Your task to perform on an android device: turn pop-ups on in chrome Image 0: 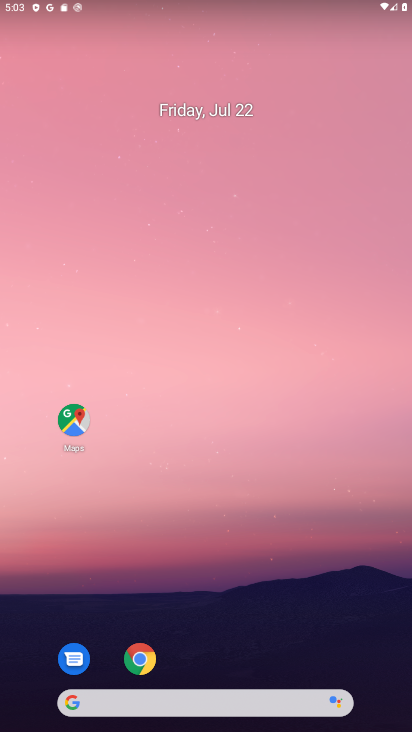
Step 0: click (131, 653)
Your task to perform on an android device: turn pop-ups on in chrome Image 1: 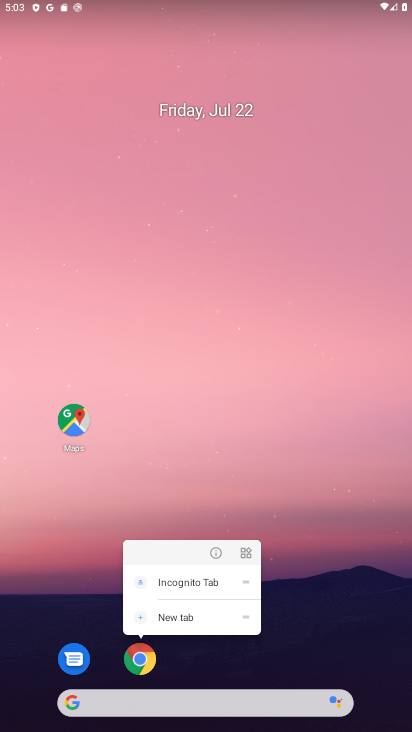
Step 1: click (142, 655)
Your task to perform on an android device: turn pop-ups on in chrome Image 2: 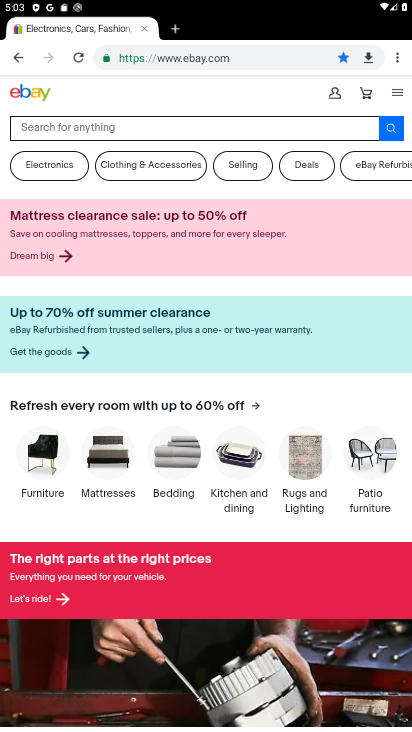
Step 2: click (399, 56)
Your task to perform on an android device: turn pop-ups on in chrome Image 3: 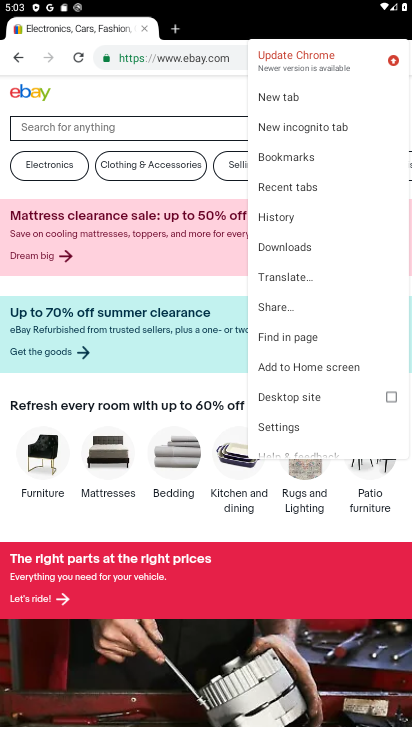
Step 3: click (312, 422)
Your task to perform on an android device: turn pop-ups on in chrome Image 4: 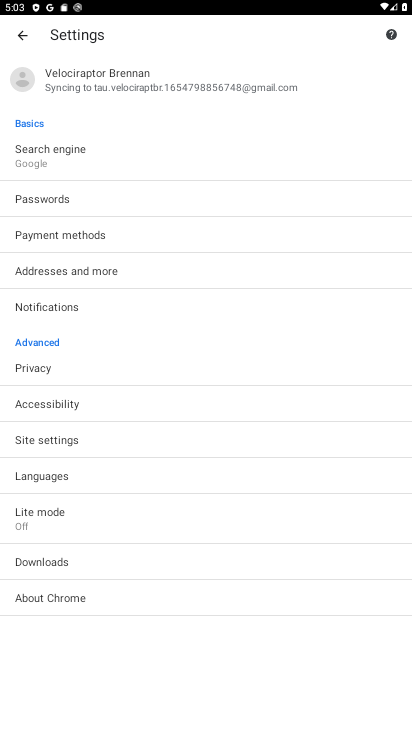
Step 4: click (107, 443)
Your task to perform on an android device: turn pop-ups on in chrome Image 5: 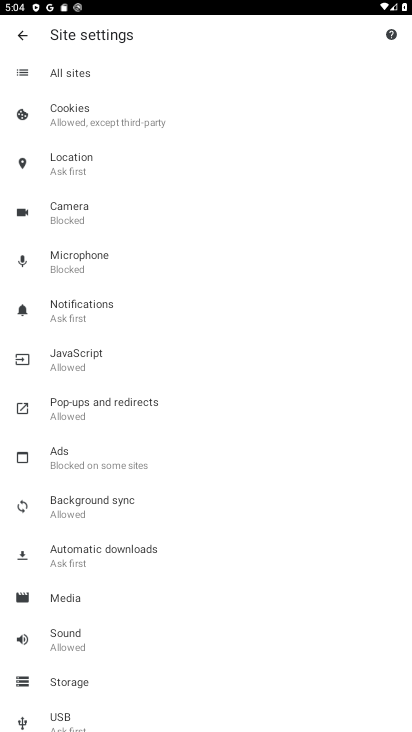
Step 5: click (121, 409)
Your task to perform on an android device: turn pop-ups on in chrome Image 6: 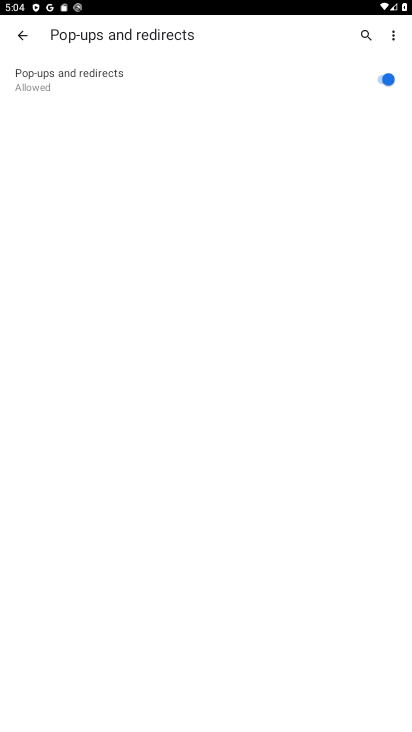
Step 6: task complete